Your task to perform on an android device: Check the news Image 0: 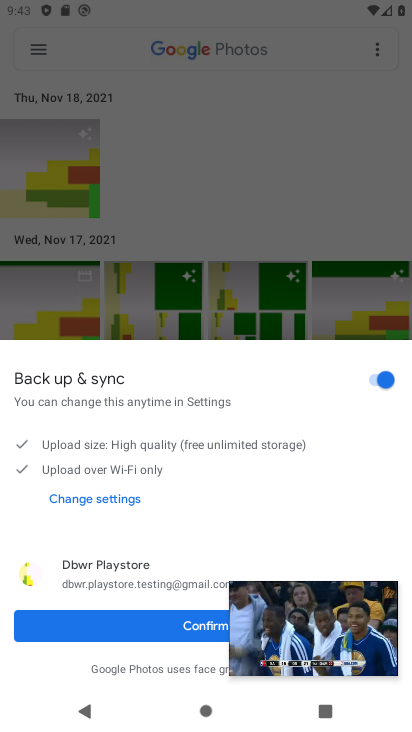
Step 0: press home button
Your task to perform on an android device: Check the news Image 1: 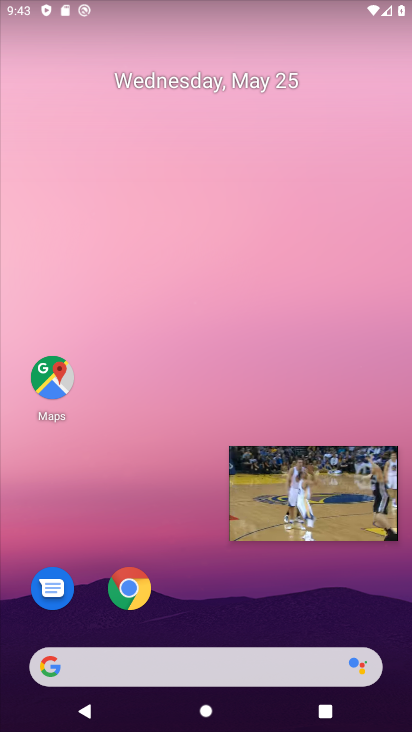
Step 1: click (140, 668)
Your task to perform on an android device: Check the news Image 2: 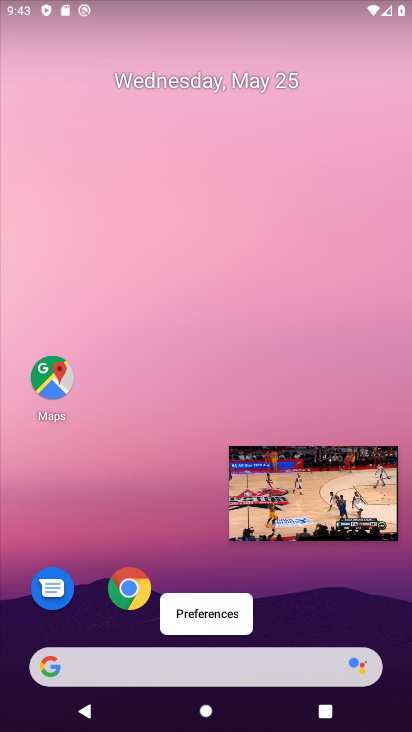
Step 2: click (139, 667)
Your task to perform on an android device: Check the news Image 3: 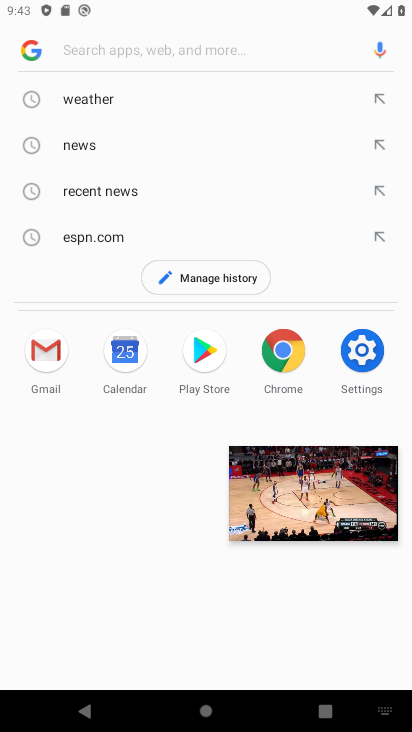
Step 3: type "news"
Your task to perform on an android device: Check the news Image 4: 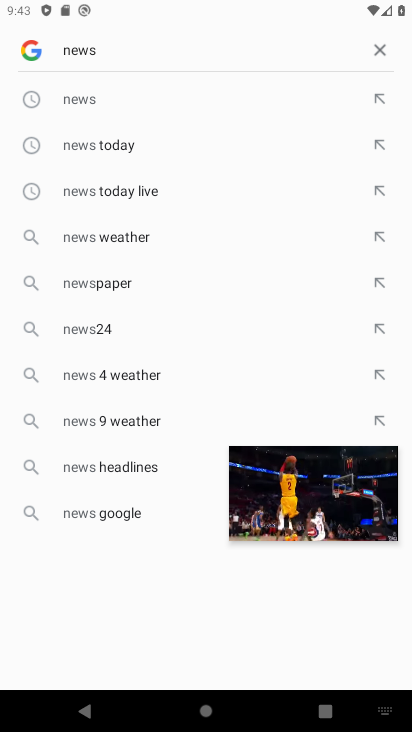
Step 4: click (82, 90)
Your task to perform on an android device: Check the news Image 5: 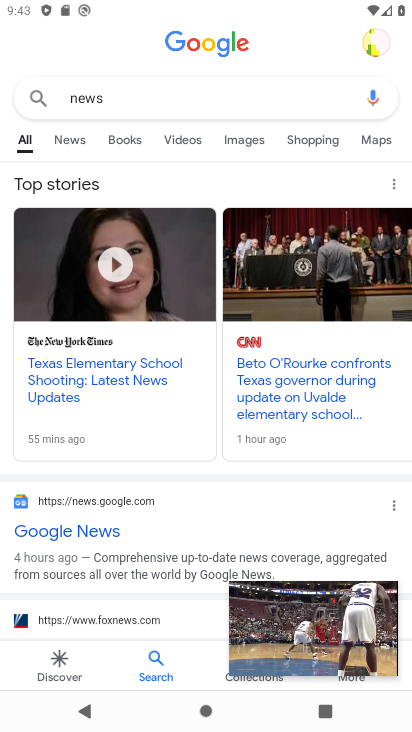
Step 5: click (75, 143)
Your task to perform on an android device: Check the news Image 6: 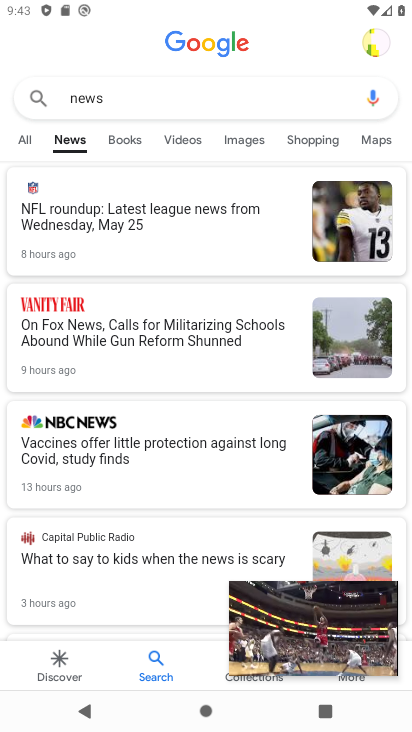
Step 6: task complete